Your task to perform on an android device: turn off notifications settings in the gmail app Image 0: 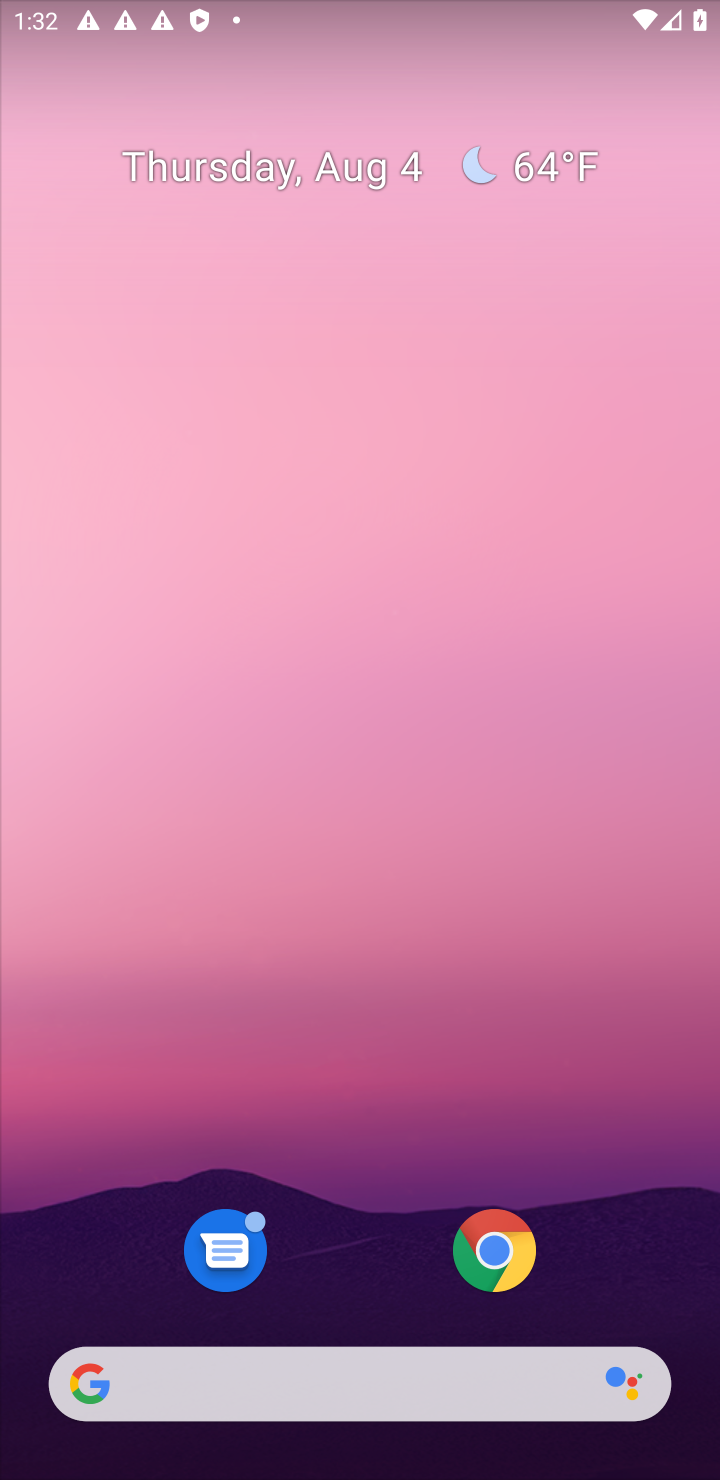
Step 0: drag from (324, 1271) to (324, 255)
Your task to perform on an android device: turn off notifications settings in the gmail app Image 1: 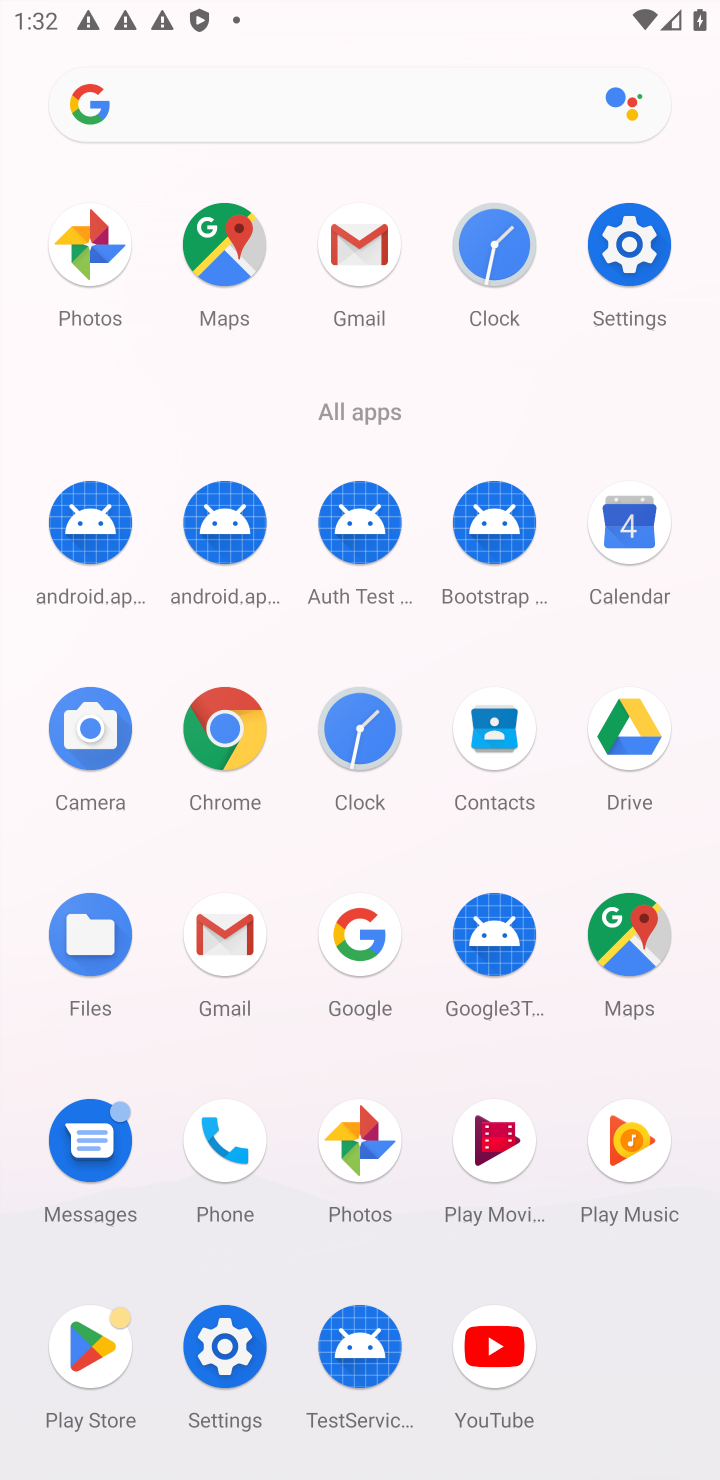
Step 1: click (372, 268)
Your task to perform on an android device: turn off notifications settings in the gmail app Image 2: 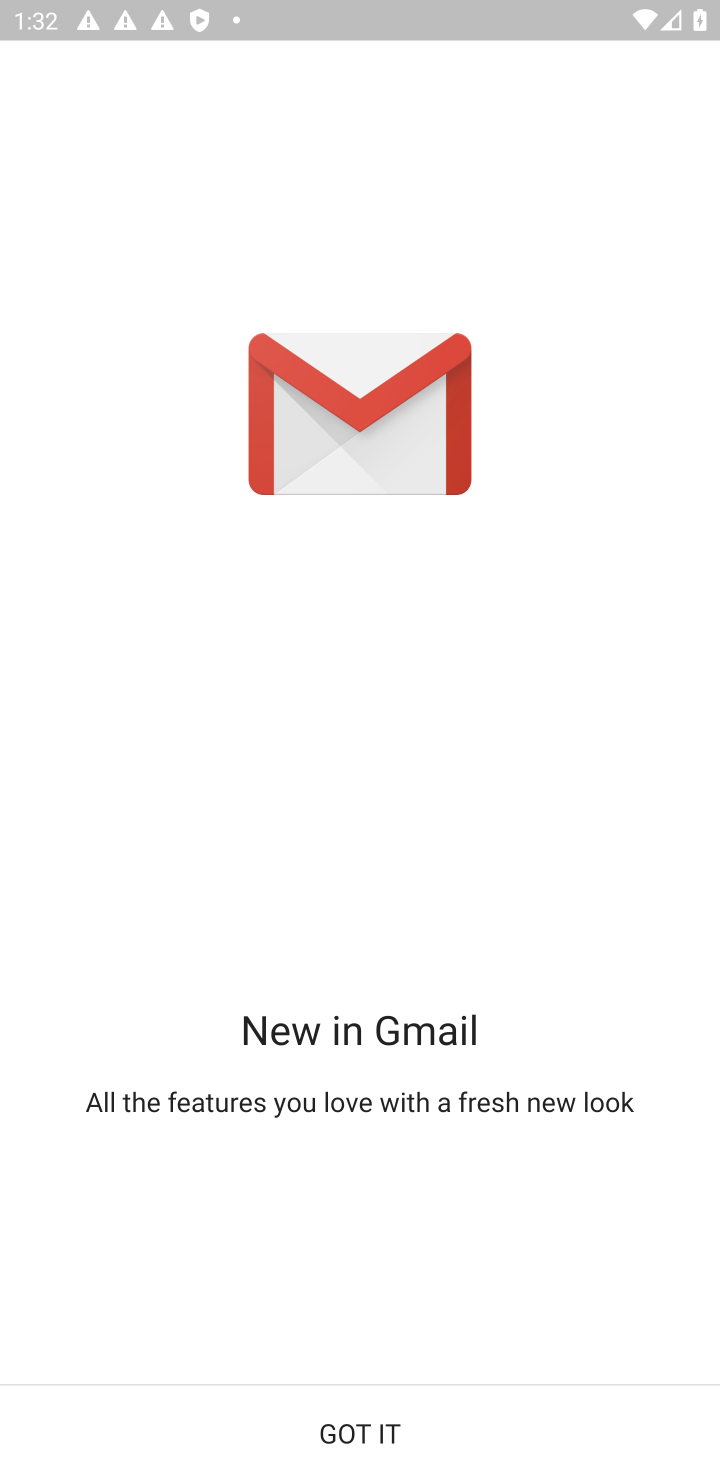
Step 2: click (348, 1424)
Your task to perform on an android device: turn off notifications settings in the gmail app Image 3: 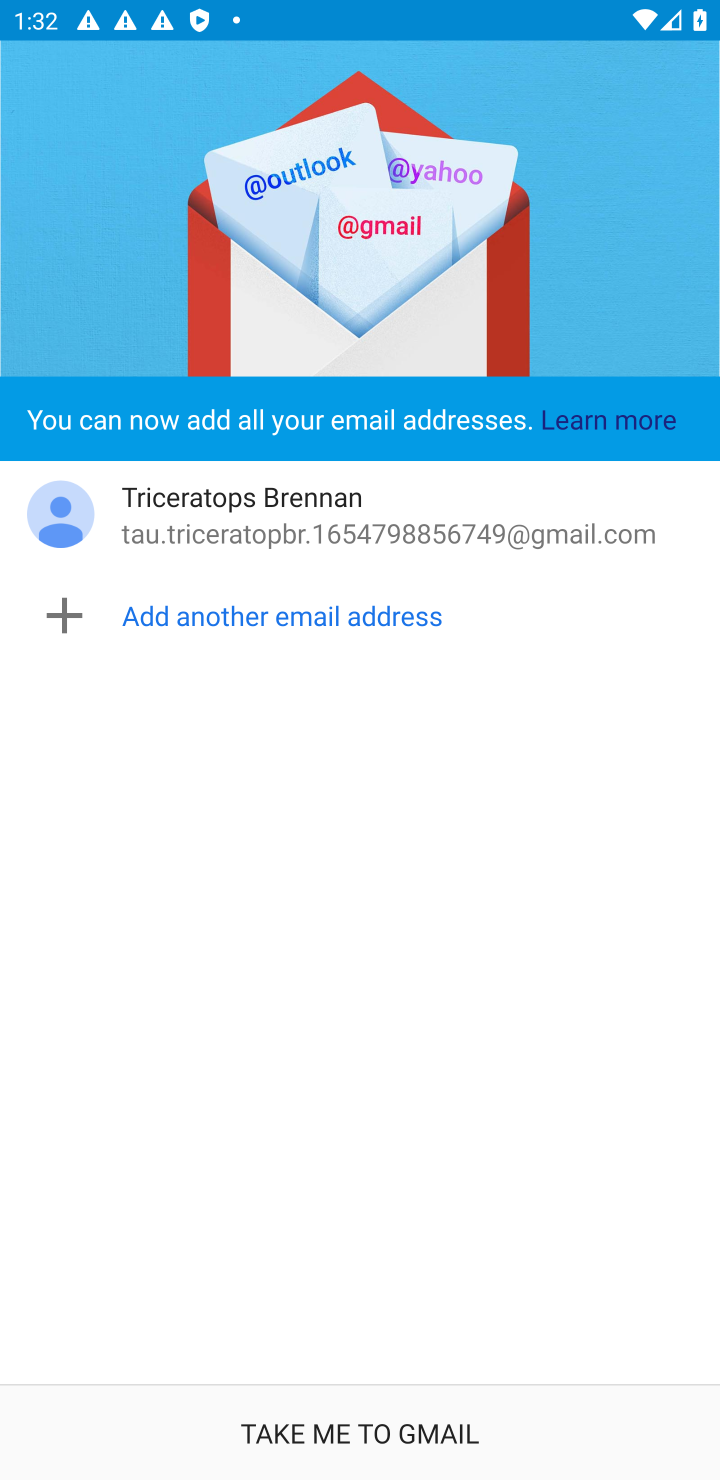
Step 3: click (393, 1437)
Your task to perform on an android device: turn off notifications settings in the gmail app Image 4: 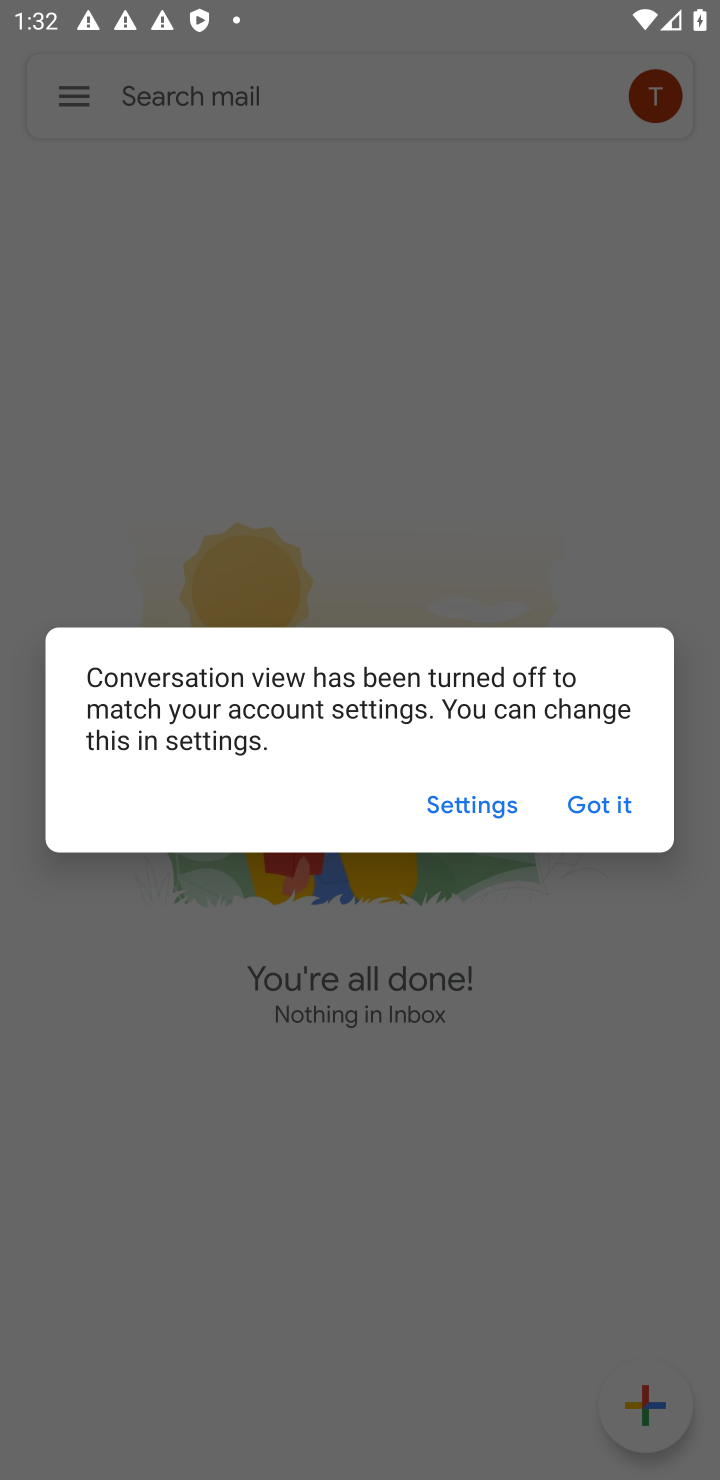
Step 4: click (598, 800)
Your task to perform on an android device: turn off notifications settings in the gmail app Image 5: 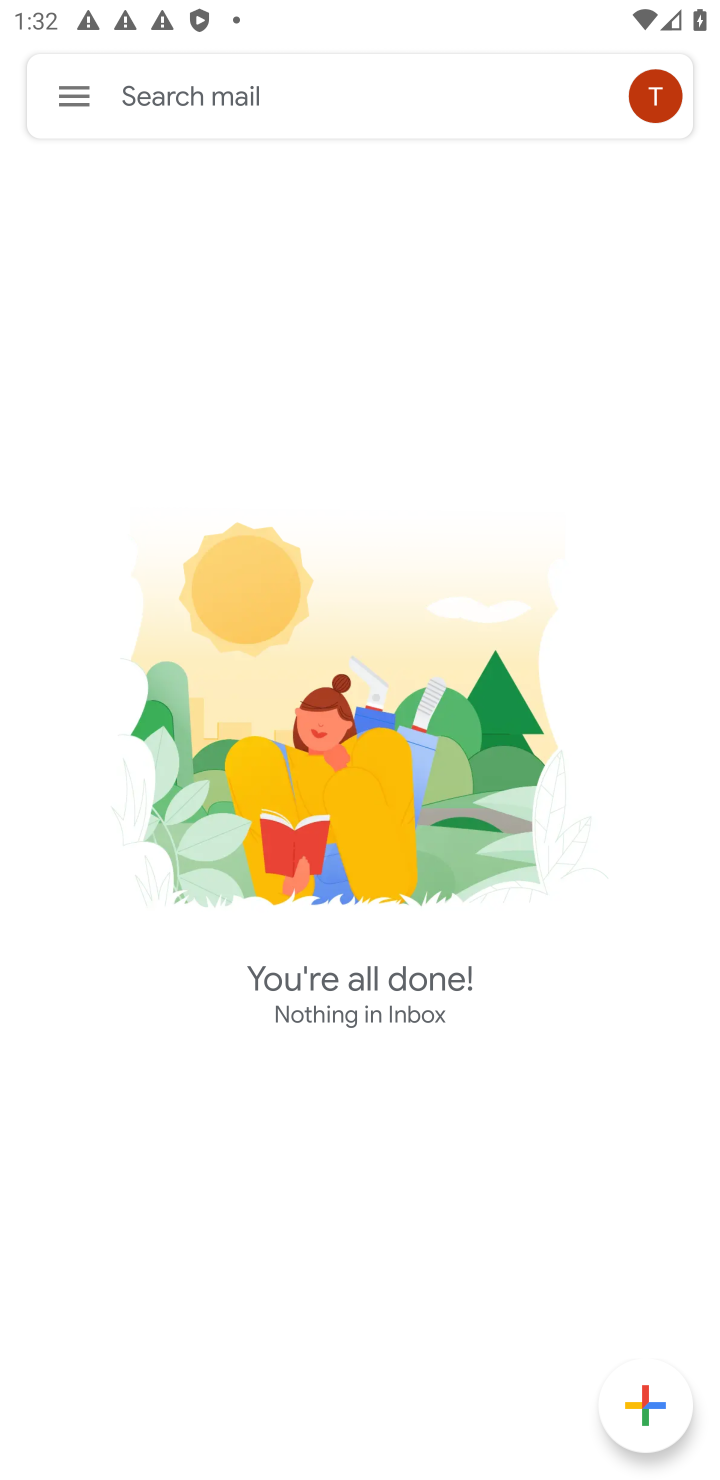
Step 5: click (71, 100)
Your task to perform on an android device: turn off notifications settings in the gmail app Image 6: 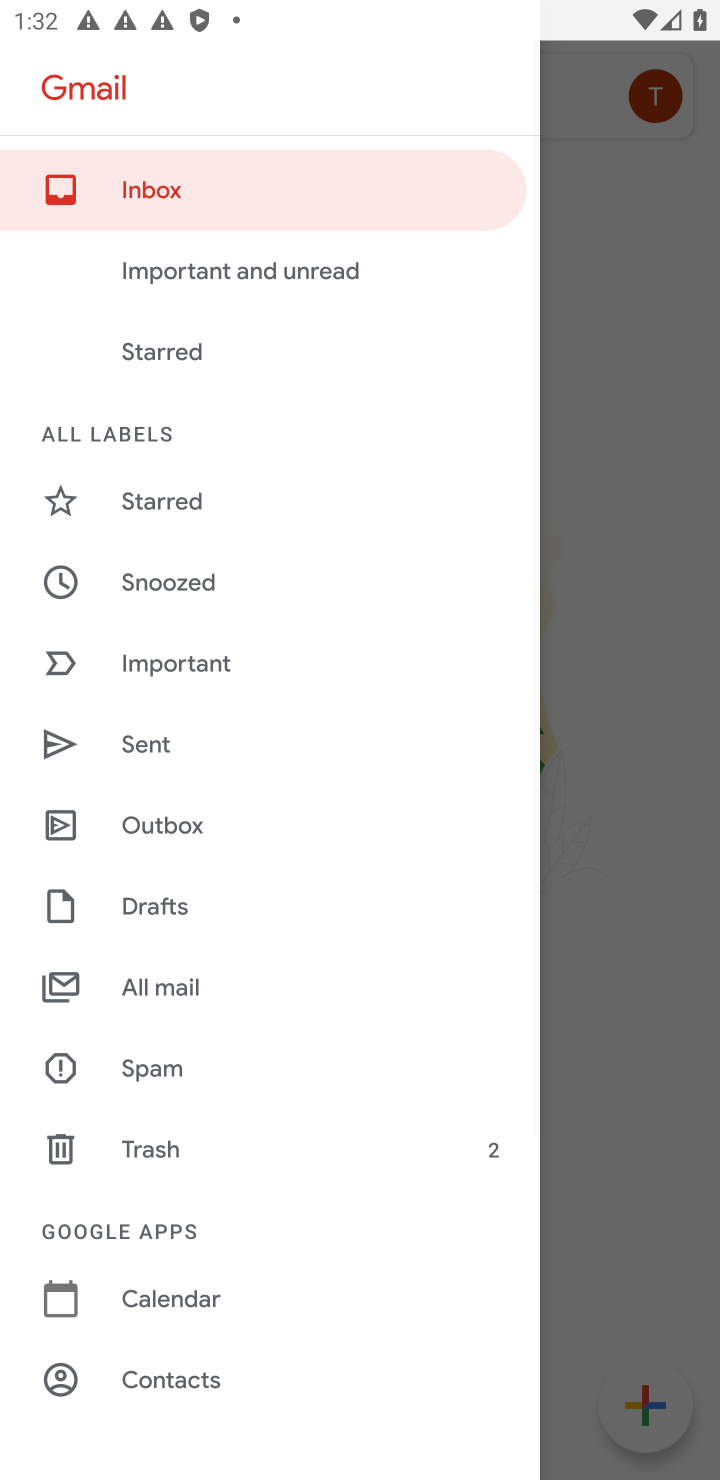
Step 6: drag from (318, 1169) to (274, 452)
Your task to perform on an android device: turn off notifications settings in the gmail app Image 7: 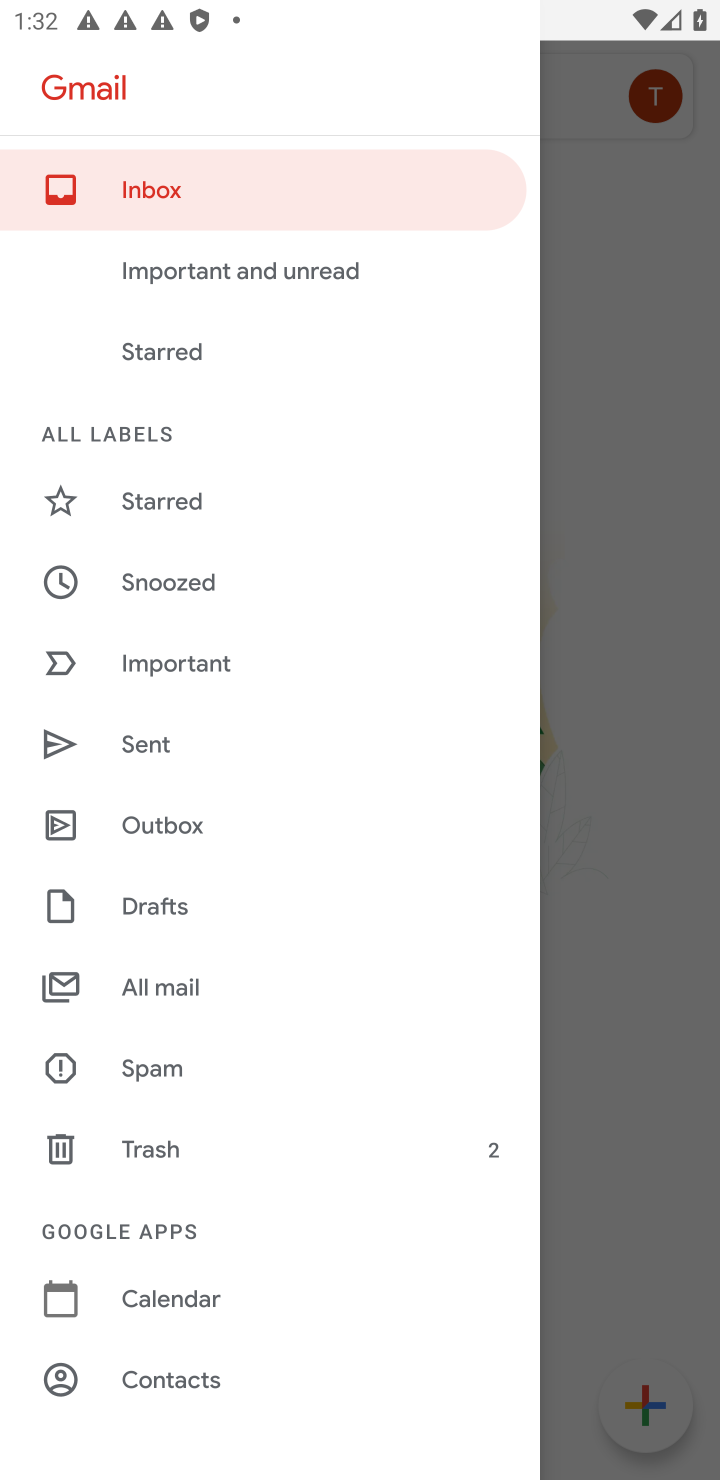
Step 7: drag from (172, 1378) to (151, 540)
Your task to perform on an android device: turn off notifications settings in the gmail app Image 8: 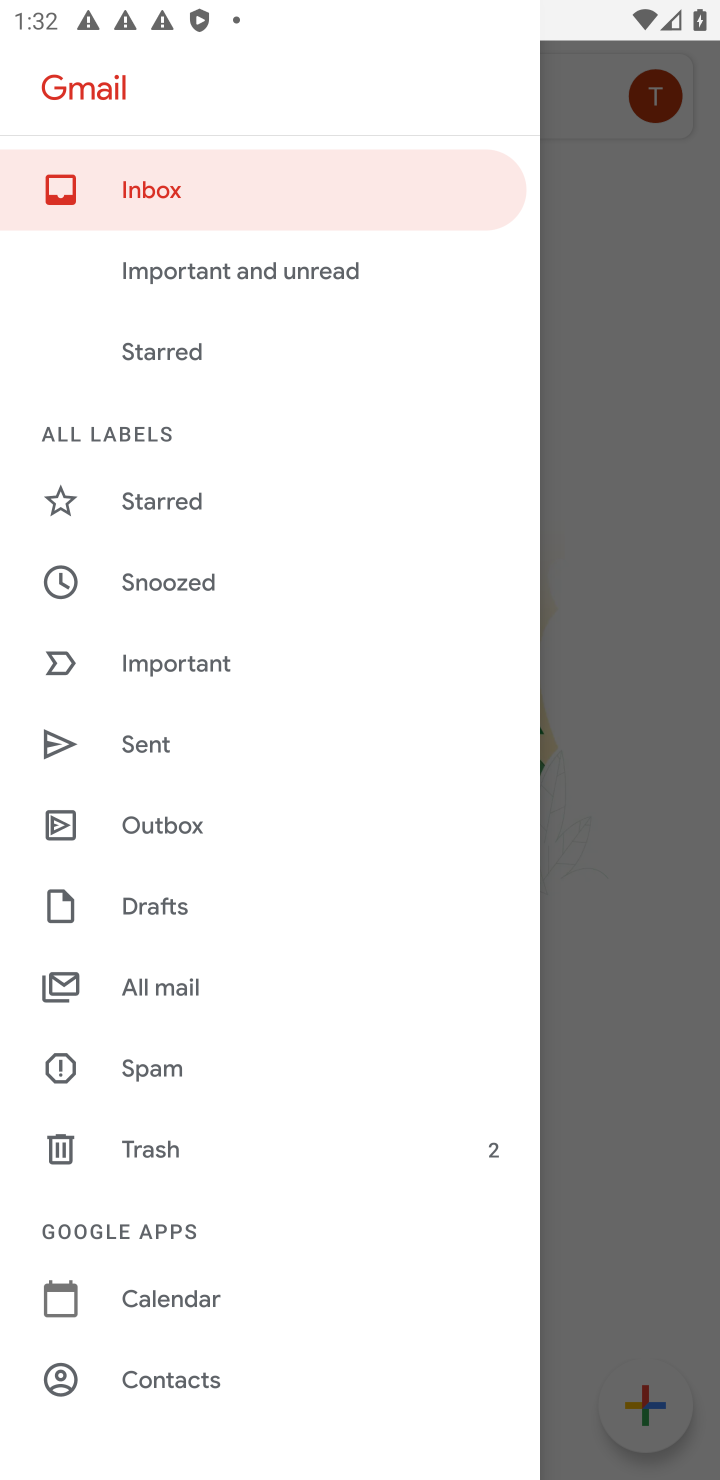
Step 8: drag from (241, 1321) to (360, 455)
Your task to perform on an android device: turn off notifications settings in the gmail app Image 9: 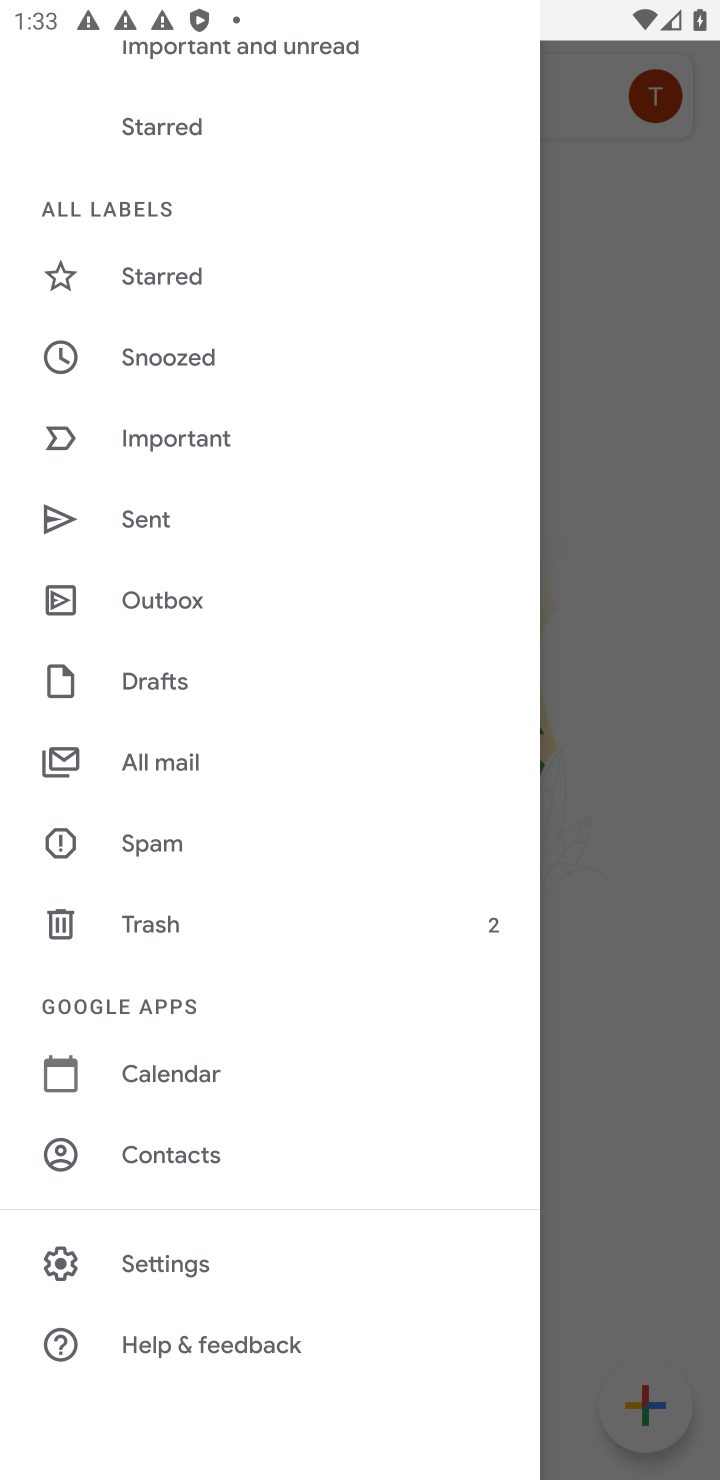
Step 9: click (208, 1250)
Your task to perform on an android device: turn off notifications settings in the gmail app Image 10: 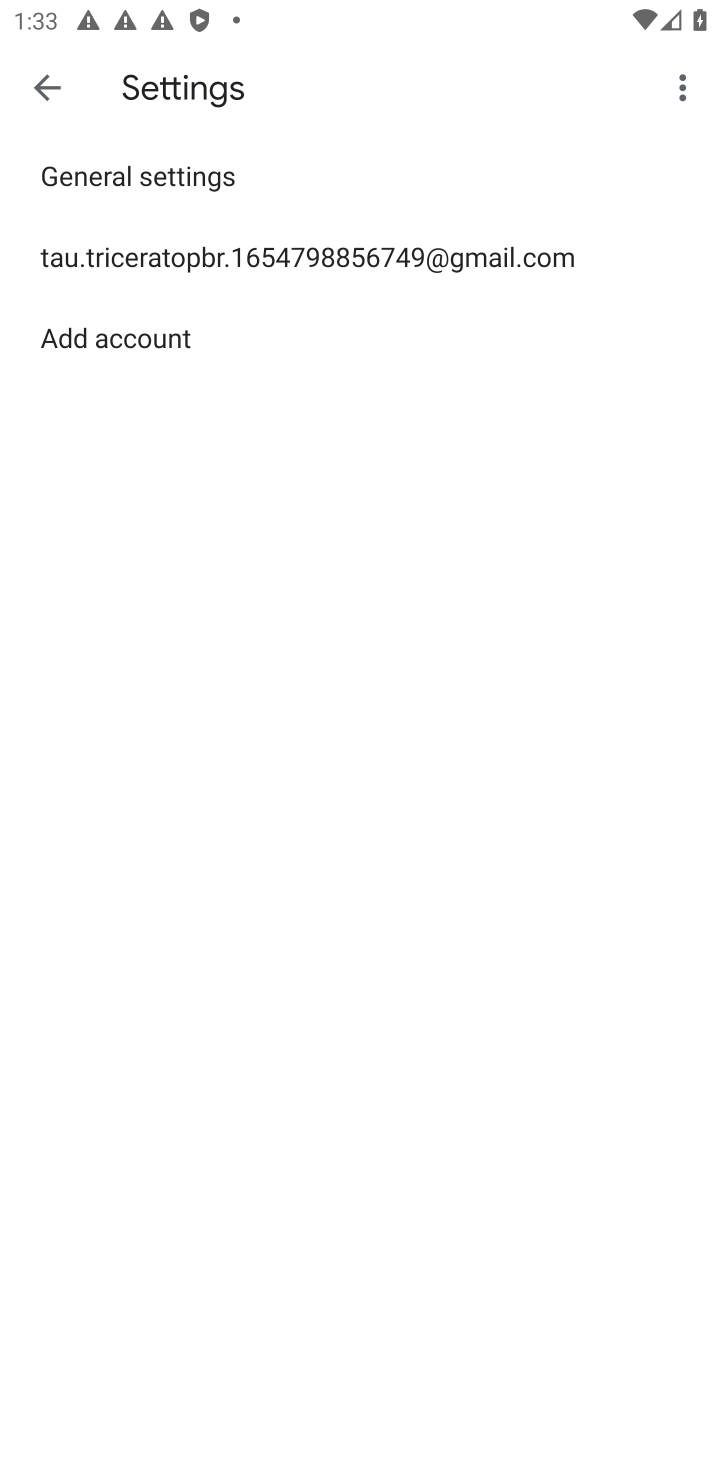
Step 10: click (308, 263)
Your task to perform on an android device: turn off notifications settings in the gmail app Image 11: 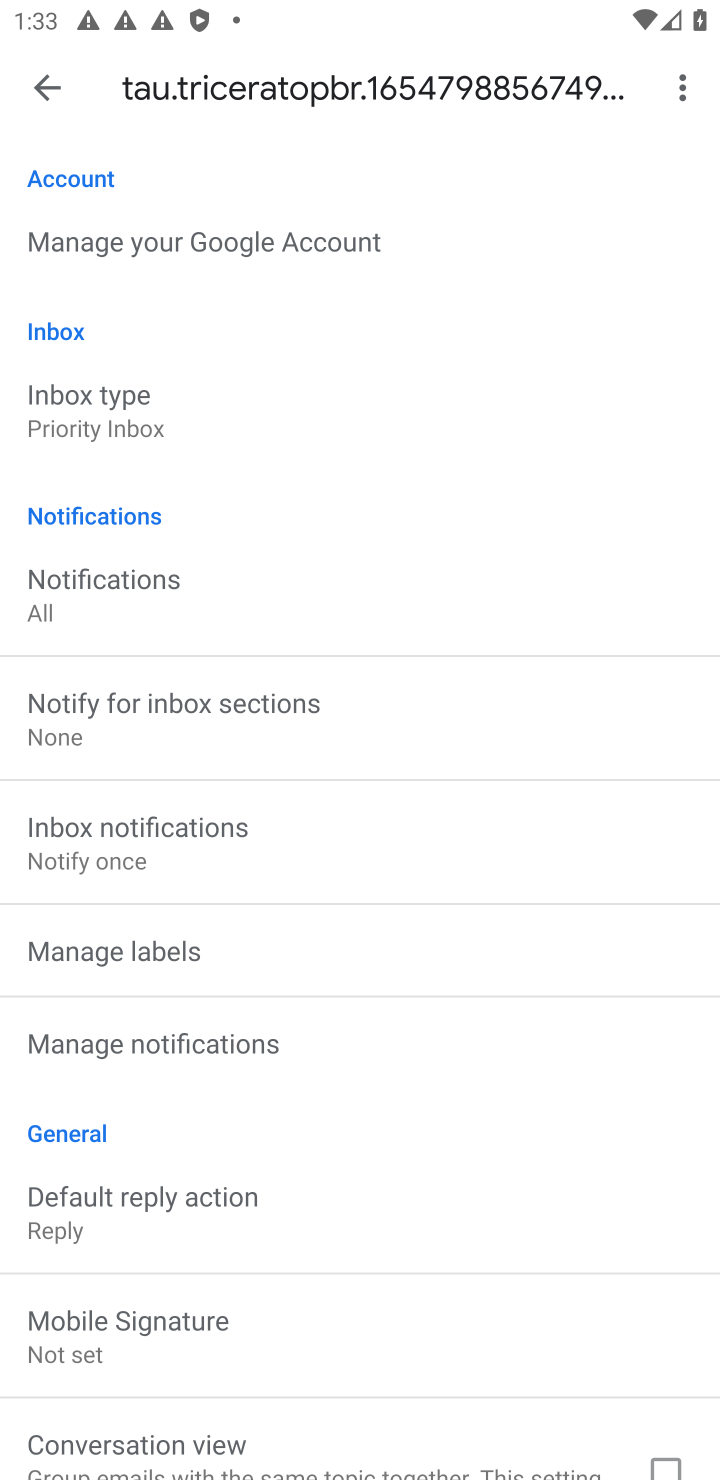
Step 11: click (209, 1048)
Your task to perform on an android device: turn off notifications settings in the gmail app Image 12: 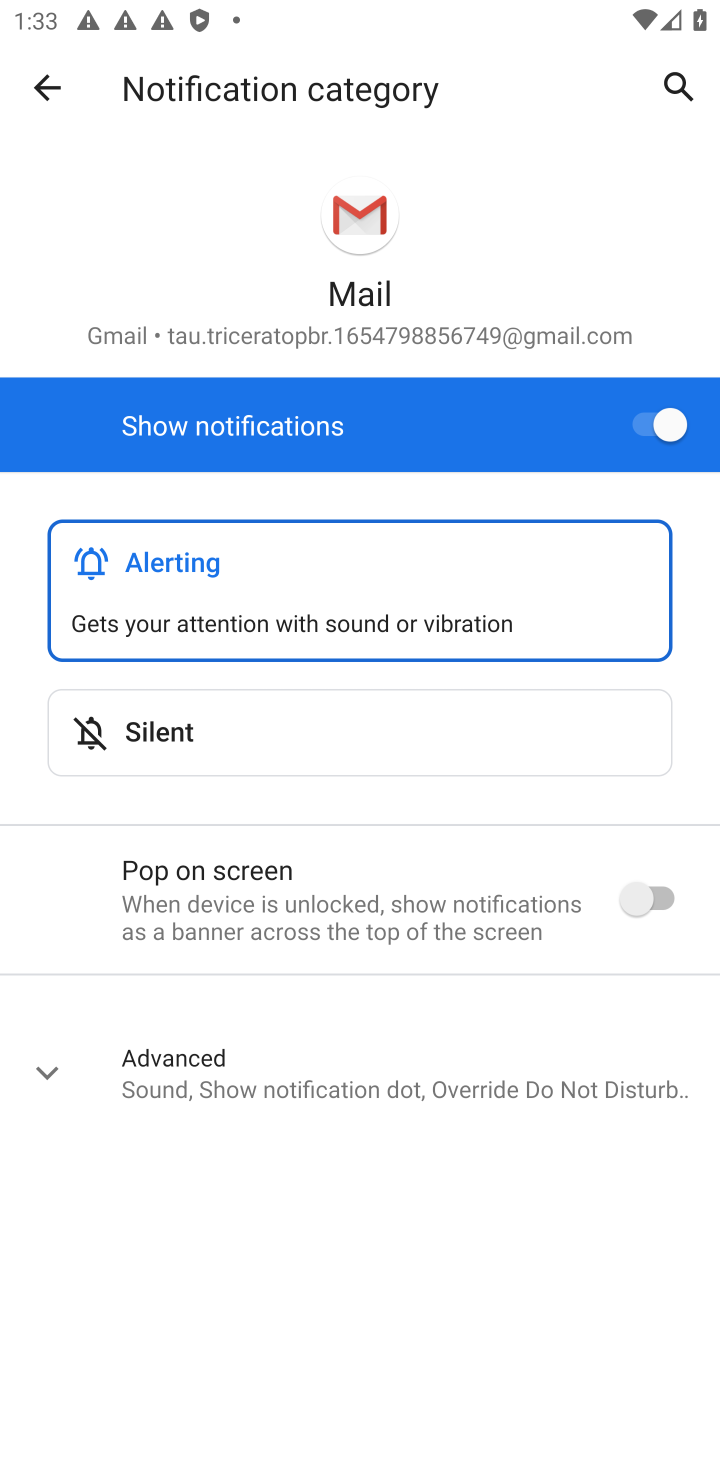
Step 12: click (624, 413)
Your task to perform on an android device: turn off notifications settings in the gmail app Image 13: 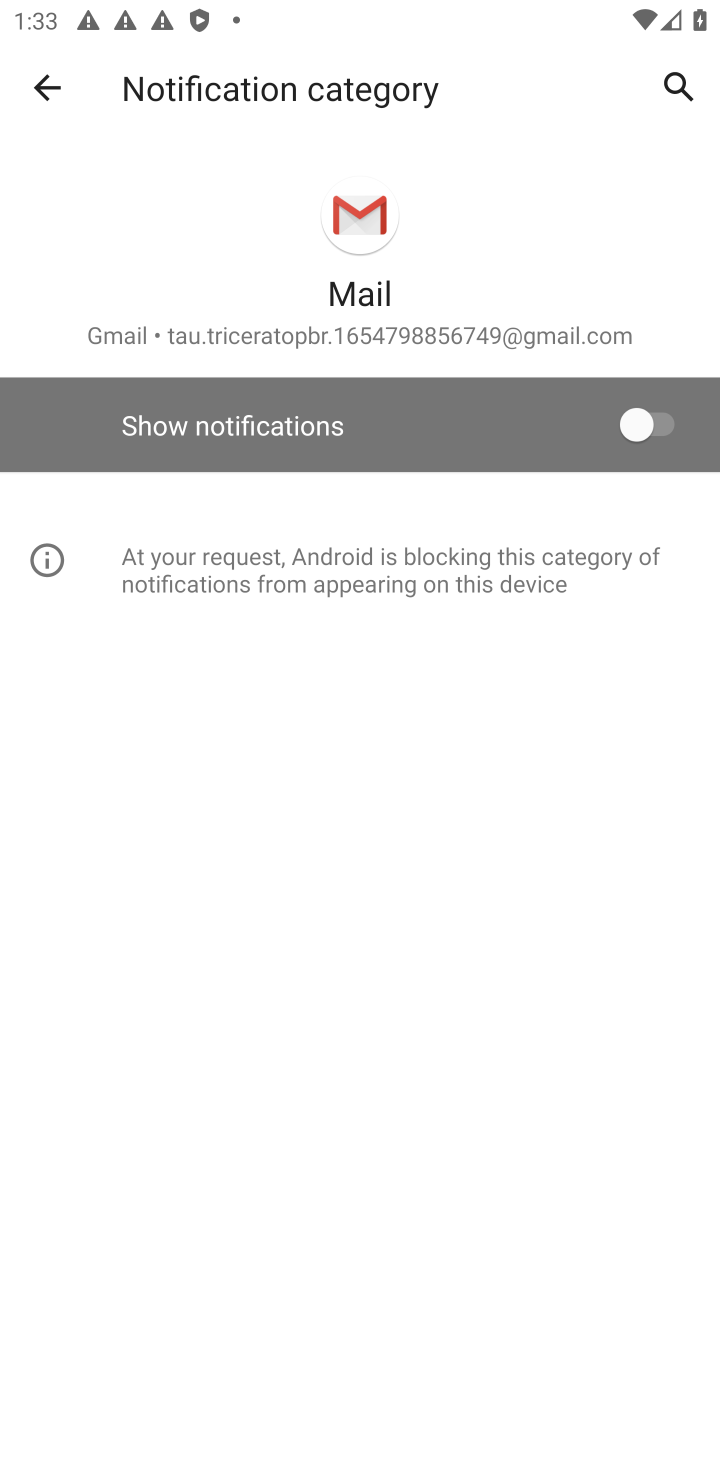
Step 13: task complete